Your task to perform on an android device: Open sound settings Image 0: 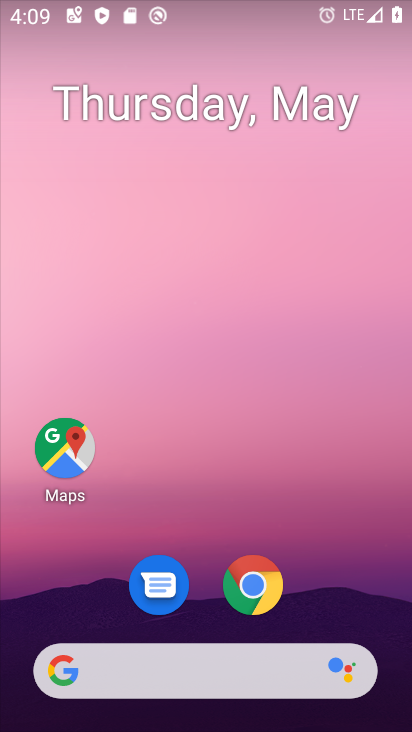
Step 0: drag from (242, 521) to (238, 52)
Your task to perform on an android device: Open sound settings Image 1: 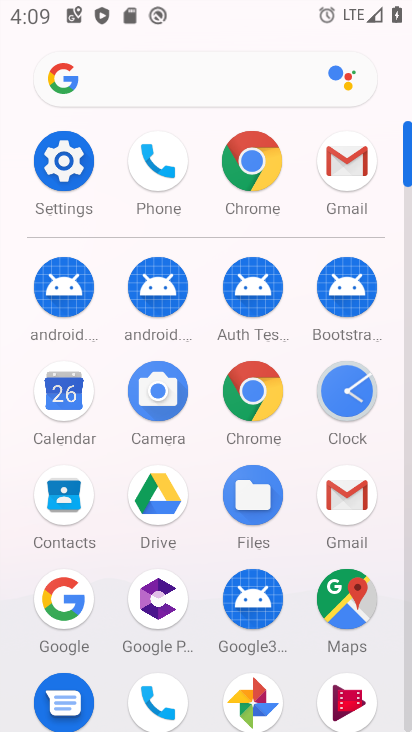
Step 1: click (62, 162)
Your task to perform on an android device: Open sound settings Image 2: 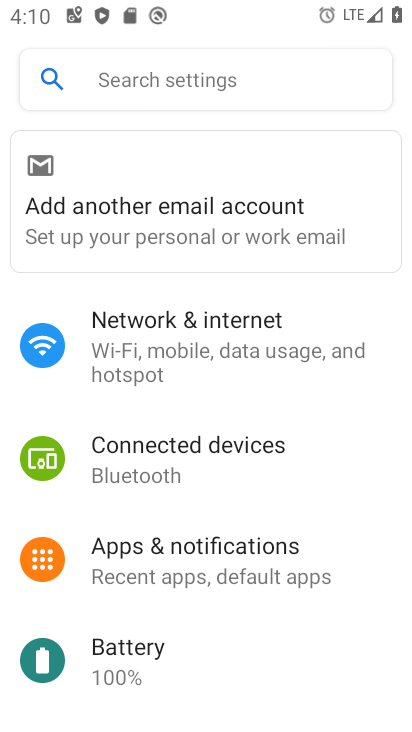
Step 2: drag from (217, 607) to (274, 98)
Your task to perform on an android device: Open sound settings Image 3: 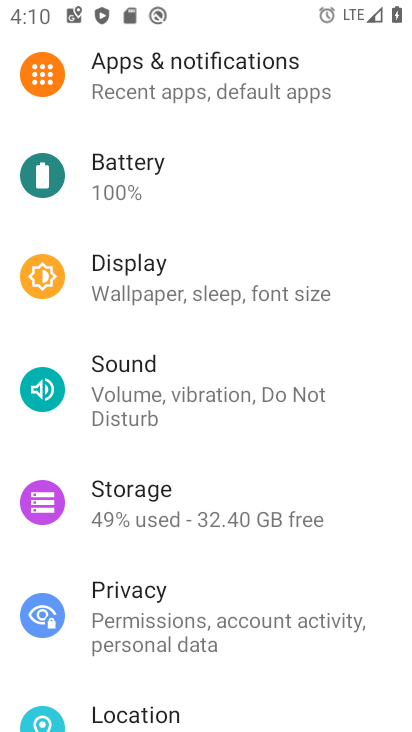
Step 3: click (219, 382)
Your task to perform on an android device: Open sound settings Image 4: 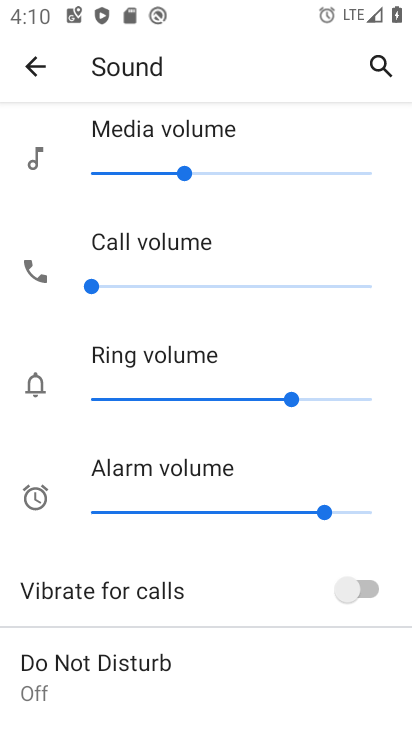
Step 4: task complete